Your task to perform on an android device: Set the phone to "Do not disturb". Image 0: 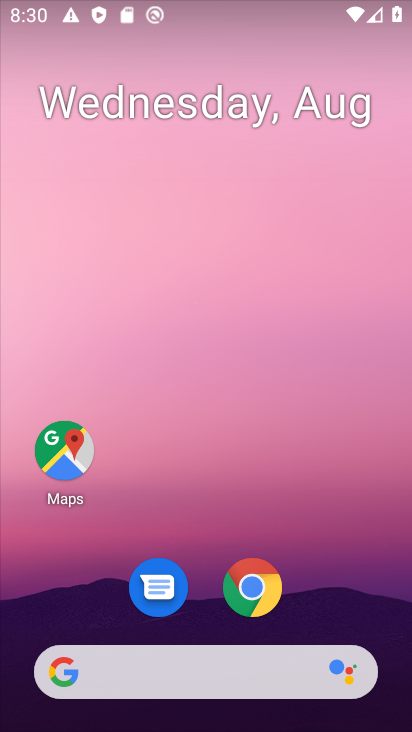
Step 0: drag from (240, 553) to (178, 249)
Your task to perform on an android device: Set the phone to "Do not disturb". Image 1: 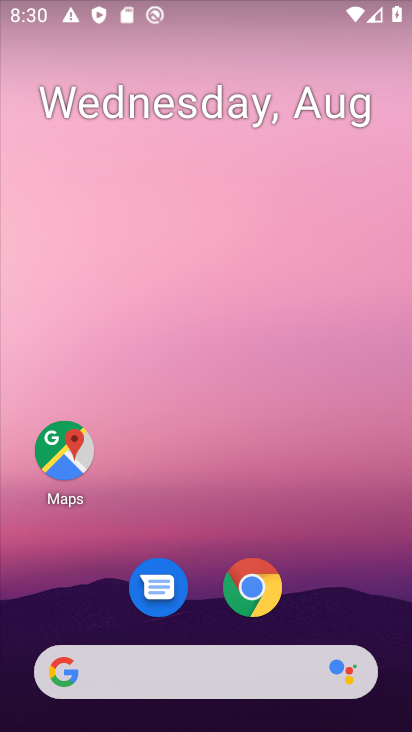
Step 1: drag from (229, 646) to (166, 34)
Your task to perform on an android device: Set the phone to "Do not disturb". Image 2: 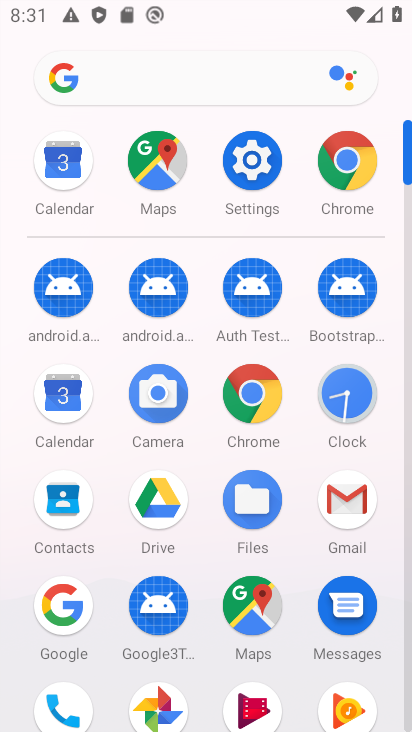
Step 2: click (250, 160)
Your task to perform on an android device: Set the phone to "Do not disturb". Image 3: 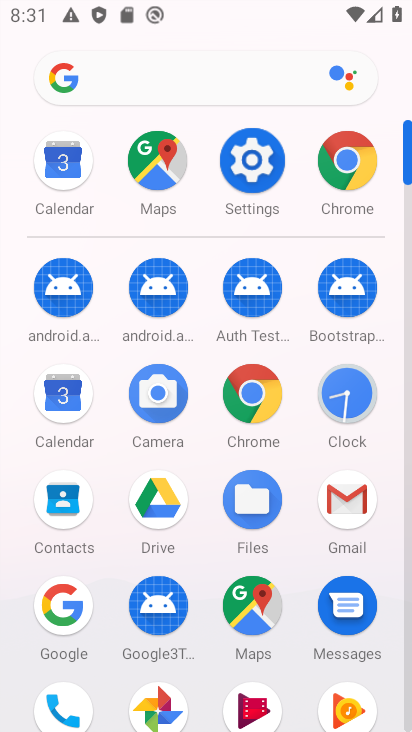
Step 3: click (250, 159)
Your task to perform on an android device: Set the phone to "Do not disturb". Image 4: 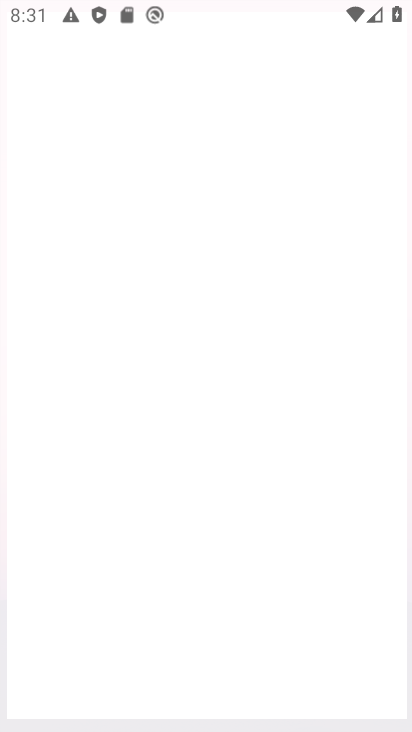
Step 4: click (251, 158)
Your task to perform on an android device: Set the phone to "Do not disturb". Image 5: 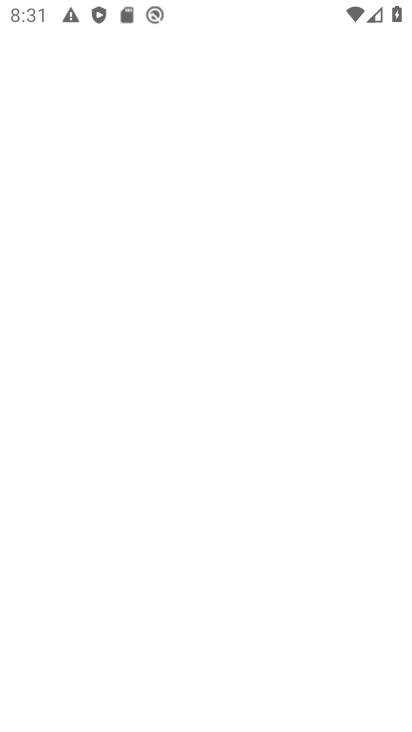
Step 5: click (260, 164)
Your task to perform on an android device: Set the phone to "Do not disturb". Image 6: 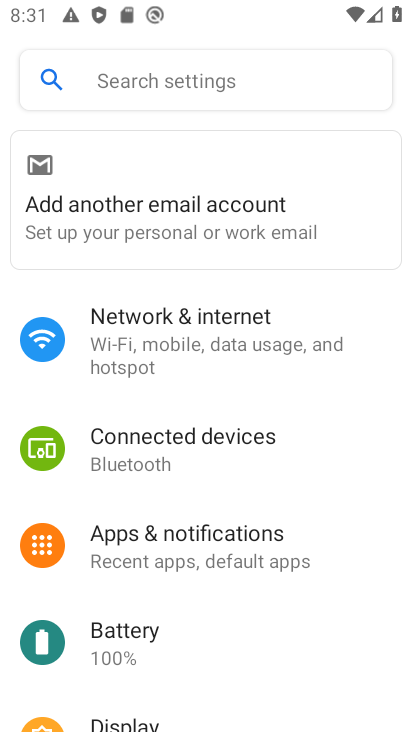
Step 6: click (132, 337)
Your task to perform on an android device: Set the phone to "Do not disturb". Image 7: 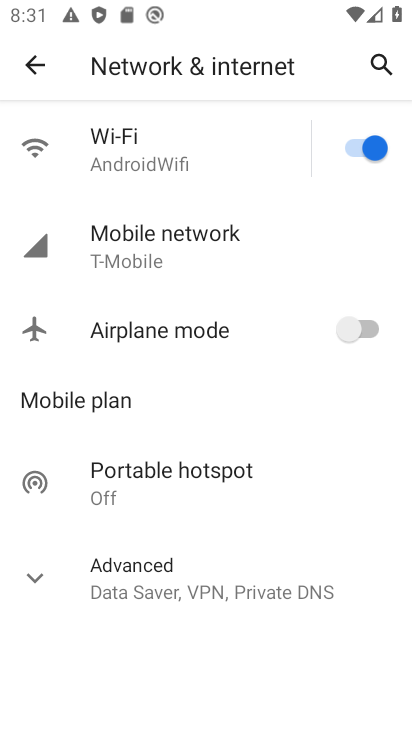
Step 7: click (27, 71)
Your task to perform on an android device: Set the phone to "Do not disturb". Image 8: 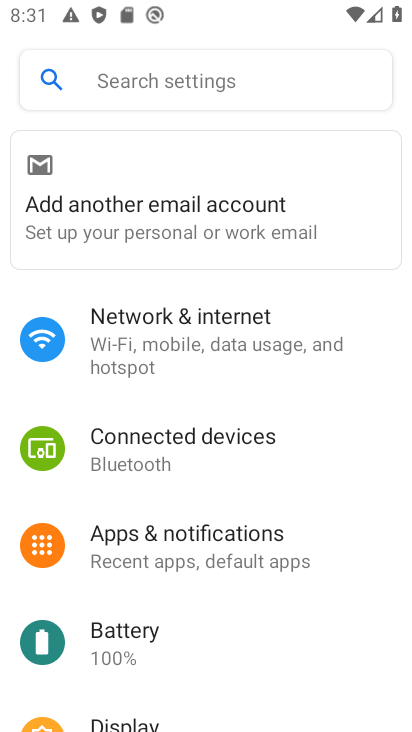
Step 8: drag from (188, 525) to (194, 279)
Your task to perform on an android device: Set the phone to "Do not disturb". Image 9: 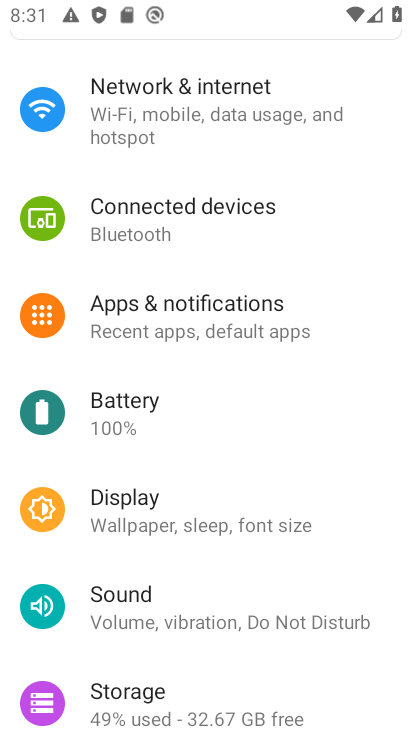
Step 9: drag from (210, 489) to (210, 273)
Your task to perform on an android device: Set the phone to "Do not disturb". Image 10: 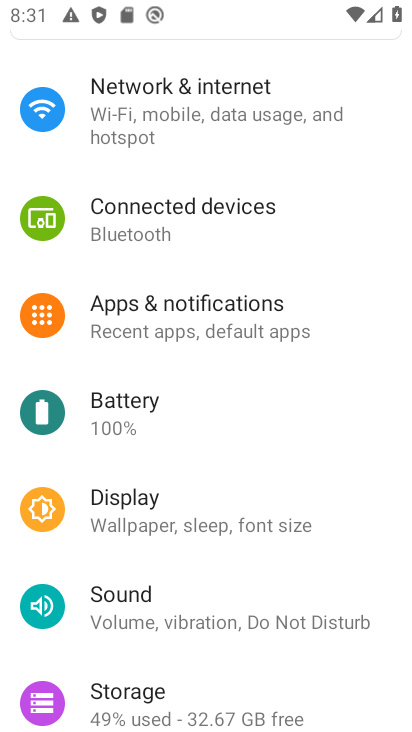
Step 10: click (141, 612)
Your task to perform on an android device: Set the phone to "Do not disturb". Image 11: 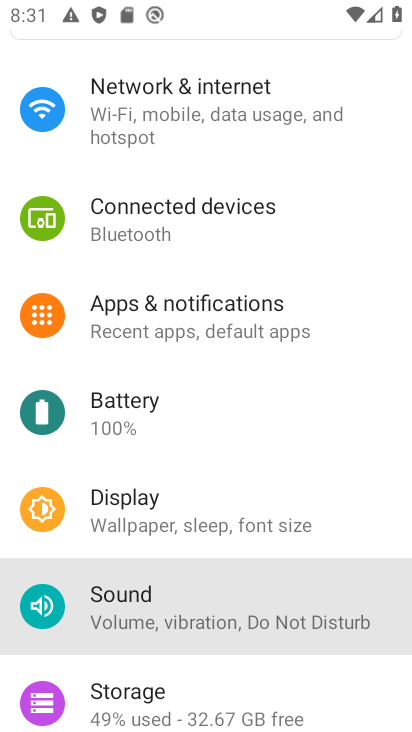
Step 11: click (174, 622)
Your task to perform on an android device: Set the phone to "Do not disturb". Image 12: 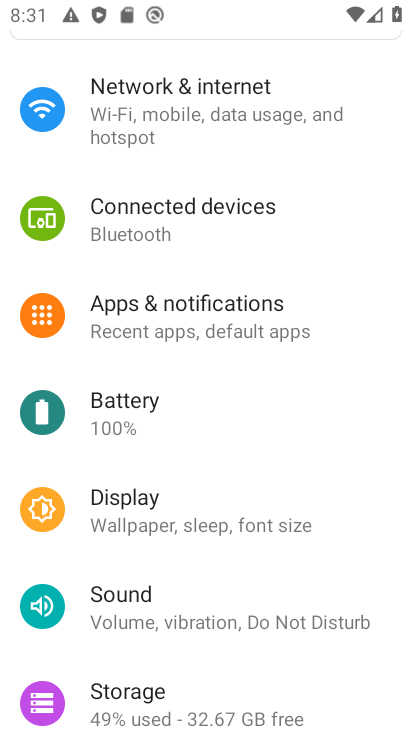
Step 12: click (303, 646)
Your task to perform on an android device: Set the phone to "Do not disturb". Image 13: 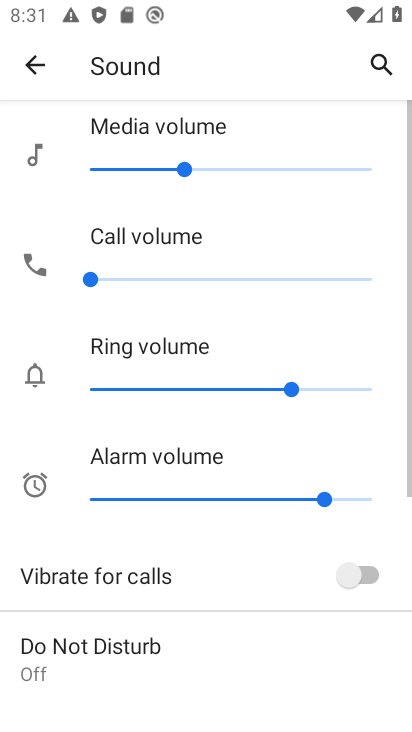
Step 13: task complete